Your task to perform on an android device: Go to privacy settings Image 0: 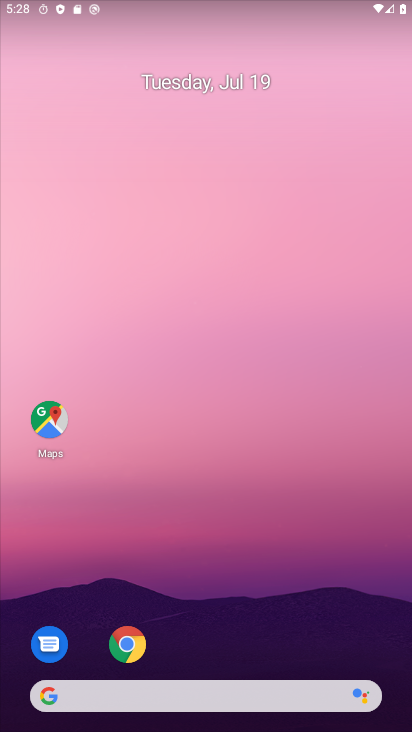
Step 0: drag from (208, 626) to (116, 196)
Your task to perform on an android device: Go to privacy settings Image 1: 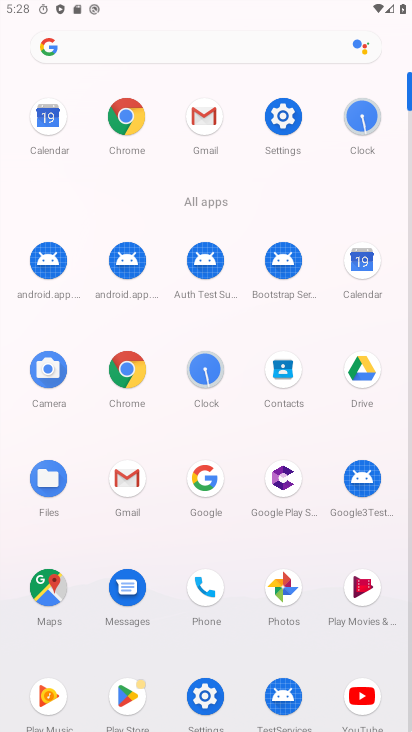
Step 1: click (210, 699)
Your task to perform on an android device: Go to privacy settings Image 2: 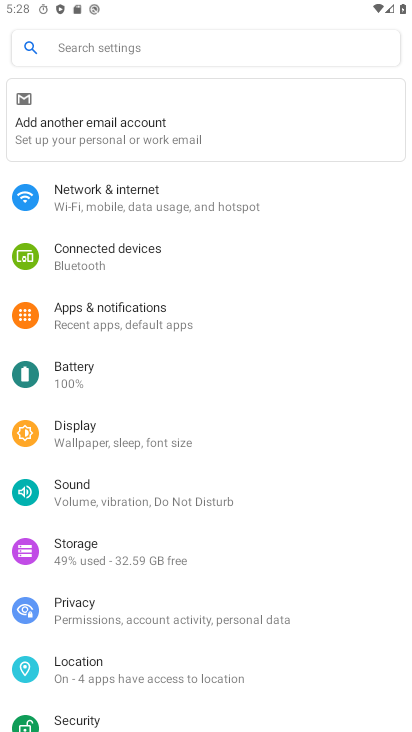
Step 2: click (66, 610)
Your task to perform on an android device: Go to privacy settings Image 3: 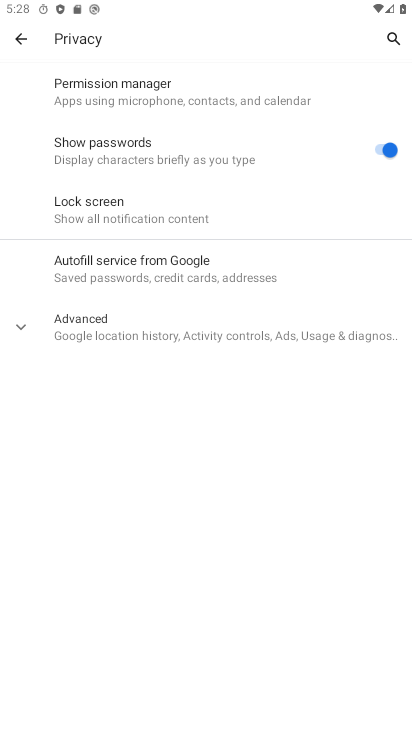
Step 3: task complete